Your task to perform on an android device: add a contact in the contacts app Image 0: 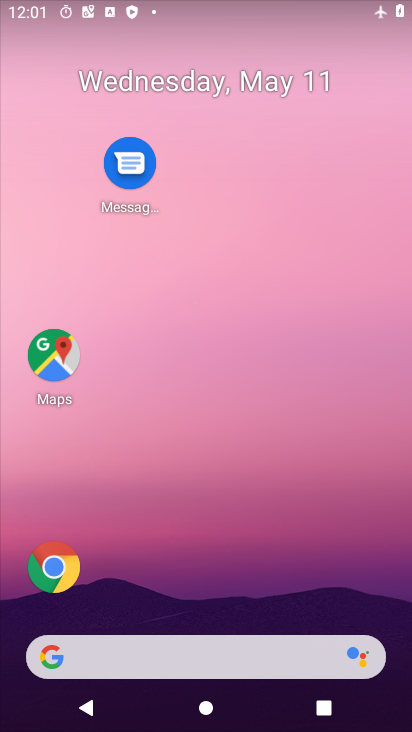
Step 0: drag from (226, 588) to (232, 230)
Your task to perform on an android device: add a contact in the contacts app Image 1: 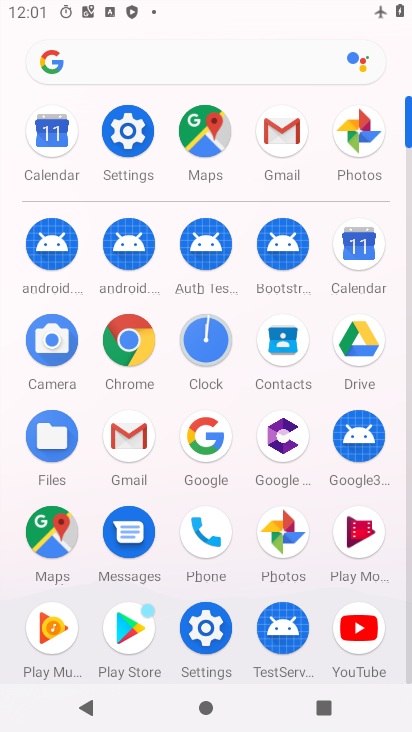
Step 1: click (291, 370)
Your task to perform on an android device: add a contact in the contacts app Image 2: 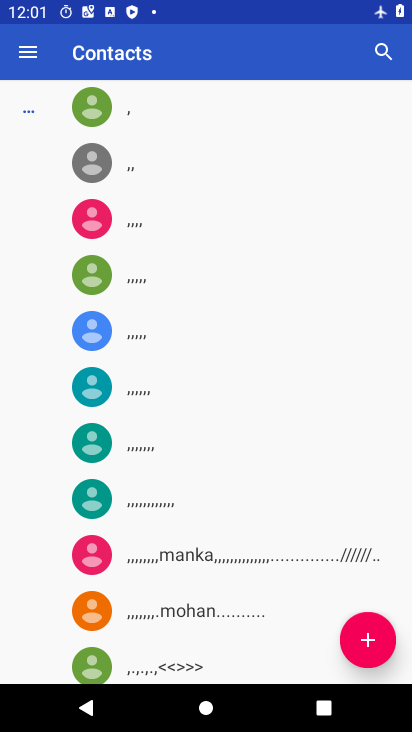
Step 2: click (381, 639)
Your task to perform on an android device: add a contact in the contacts app Image 3: 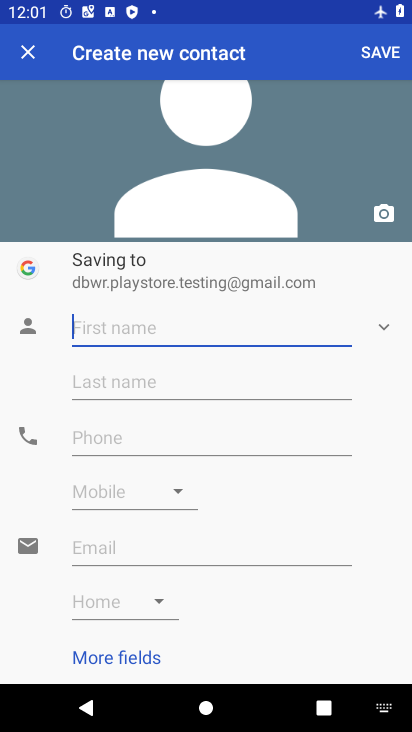
Step 3: click (126, 334)
Your task to perform on an android device: add a contact in the contacts app Image 4: 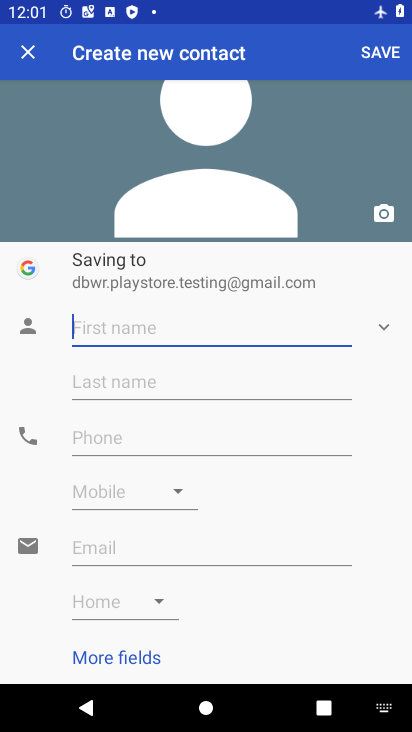
Step 4: type "fdgfdgdf"
Your task to perform on an android device: add a contact in the contacts app Image 5: 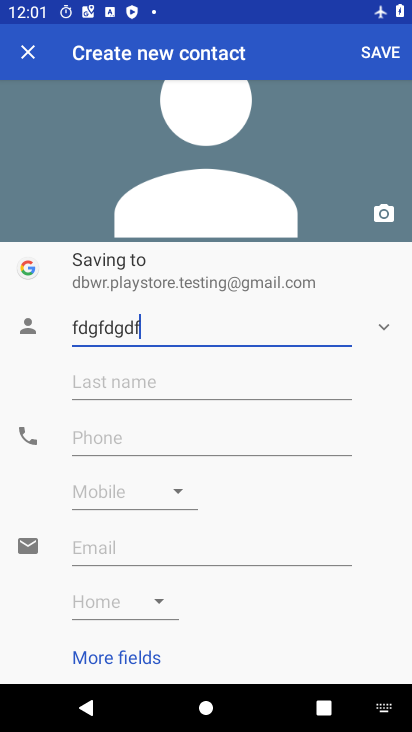
Step 5: type ""
Your task to perform on an android device: add a contact in the contacts app Image 6: 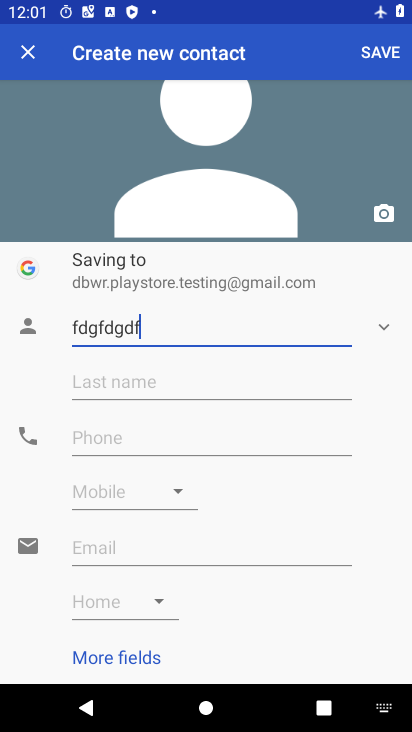
Step 6: click (372, 57)
Your task to perform on an android device: add a contact in the contacts app Image 7: 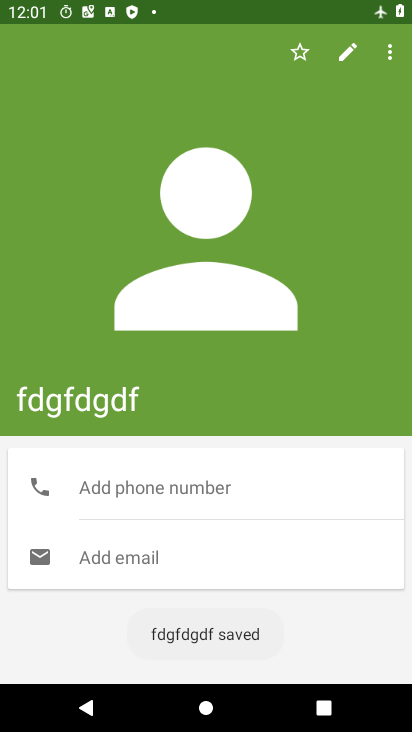
Step 7: task complete